Your task to perform on an android device: turn off airplane mode Image 0: 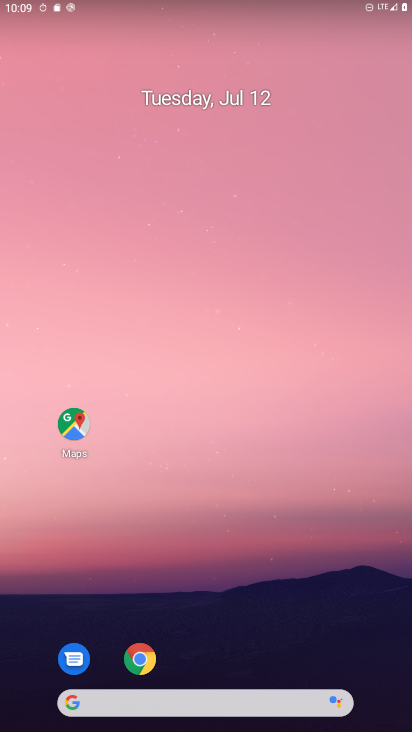
Step 0: drag from (382, 711) to (260, 137)
Your task to perform on an android device: turn off airplane mode Image 1: 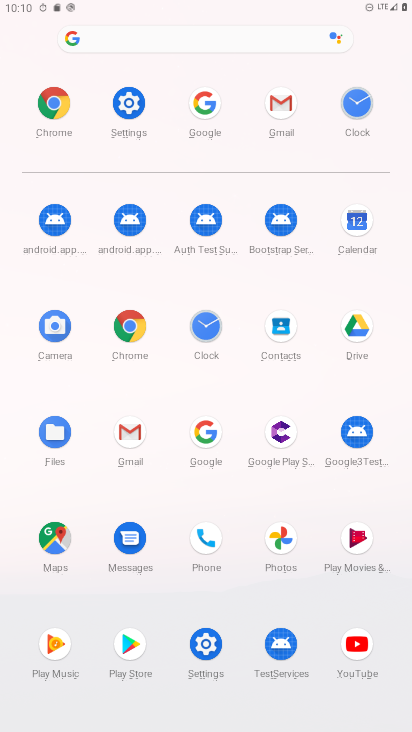
Step 1: task complete